Your task to perform on an android device: Search for Mexican restaurants on Maps Image 0: 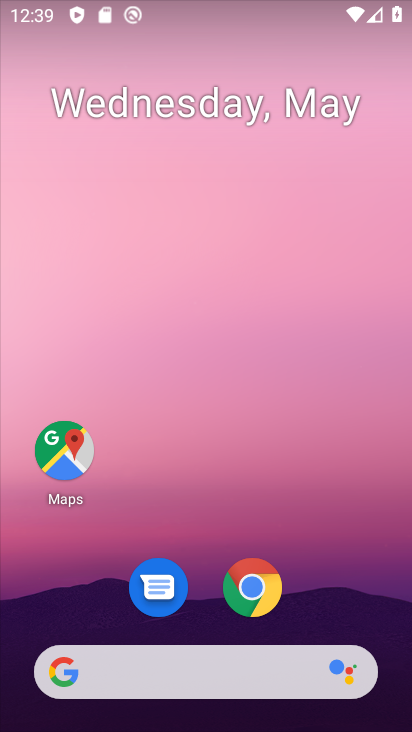
Step 0: drag from (361, 620) to (393, 207)
Your task to perform on an android device: Search for Mexican restaurants on Maps Image 1: 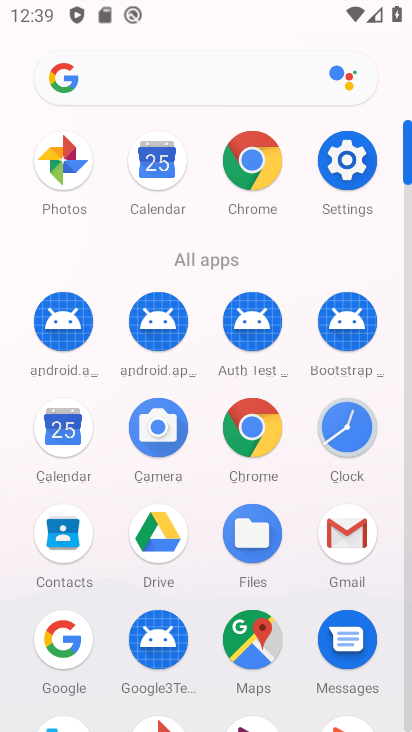
Step 1: click (268, 638)
Your task to perform on an android device: Search for Mexican restaurants on Maps Image 2: 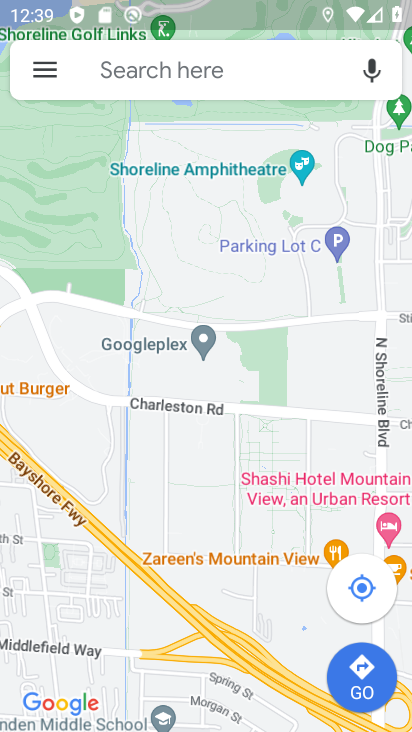
Step 2: click (239, 68)
Your task to perform on an android device: Search for Mexican restaurants on Maps Image 3: 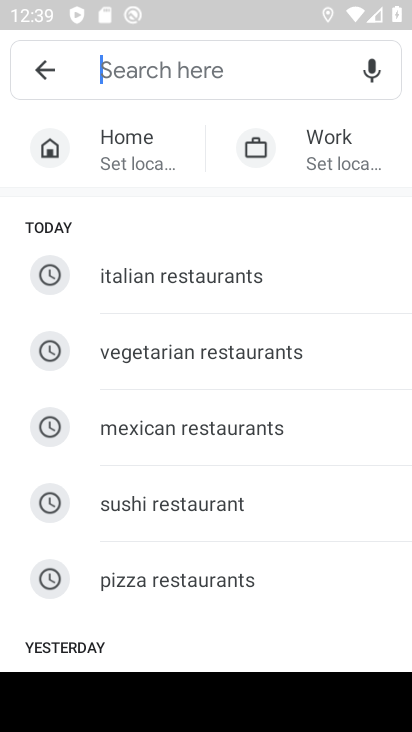
Step 3: type "mexcian restaurants"
Your task to perform on an android device: Search for Mexican restaurants on Maps Image 4: 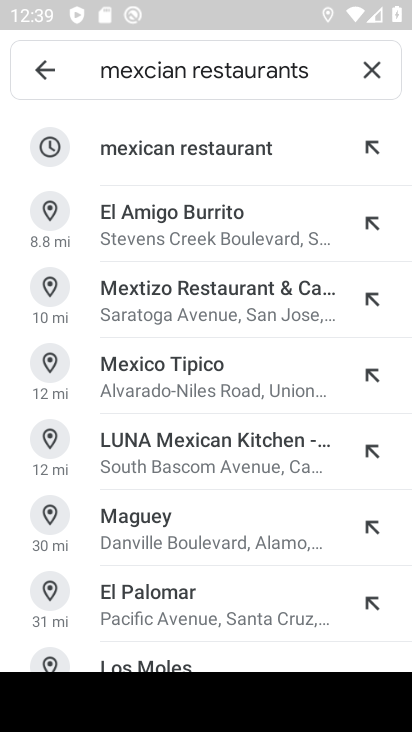
Step 4: click (210, 158)
Your task to perform on an android device: Search for Mexican restaurants on Maps Image 5: 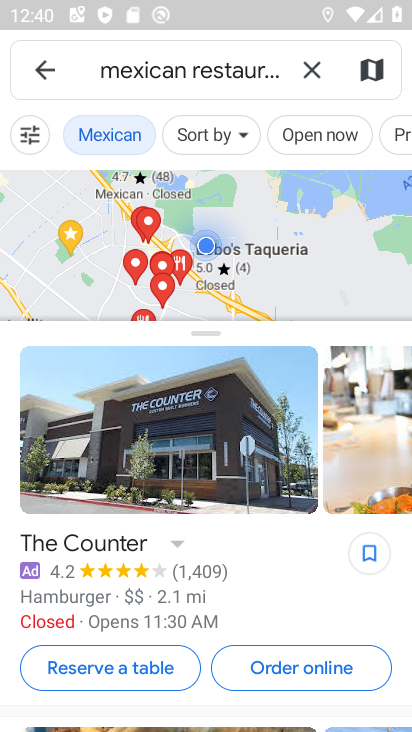
Step 5: task complete